Your task to perform on an android device: Open notification settings Image 0: 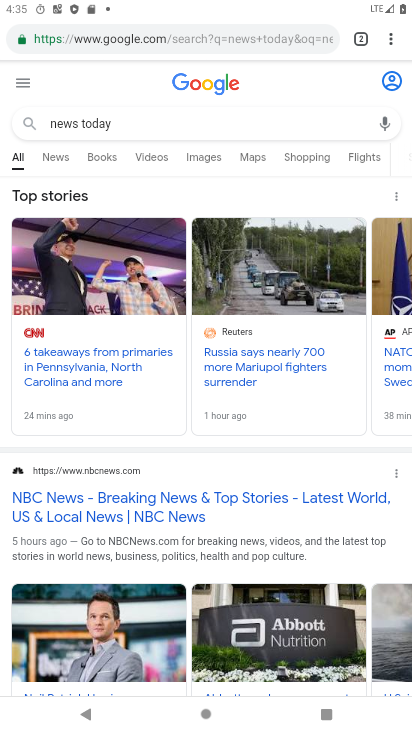
Step 0: click (396, 43)
Your task to perform on an android device: Open notification settings Image 1: 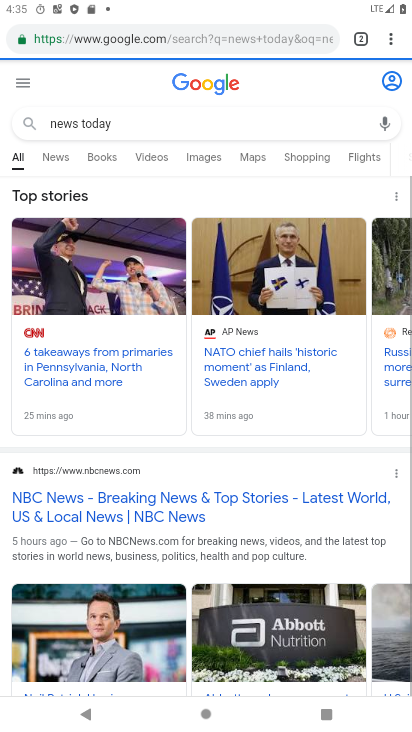
Step 1: click (382, 43)
Your task to perform on an android device: Open notification settings Image 2: 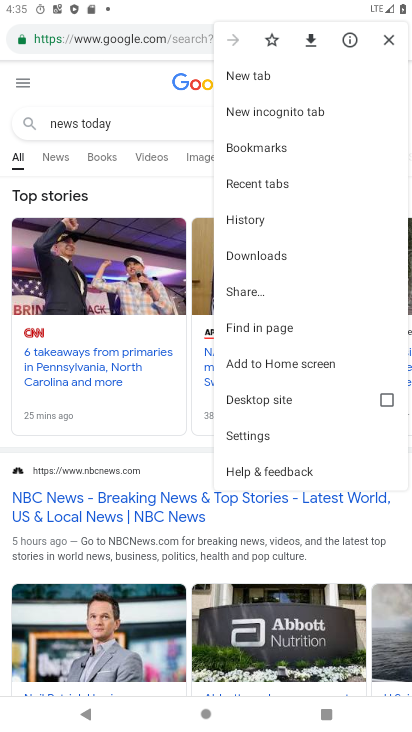
Step 2: click (254, 444)
Your task to perform on an android device: Open notification settings Image 3: 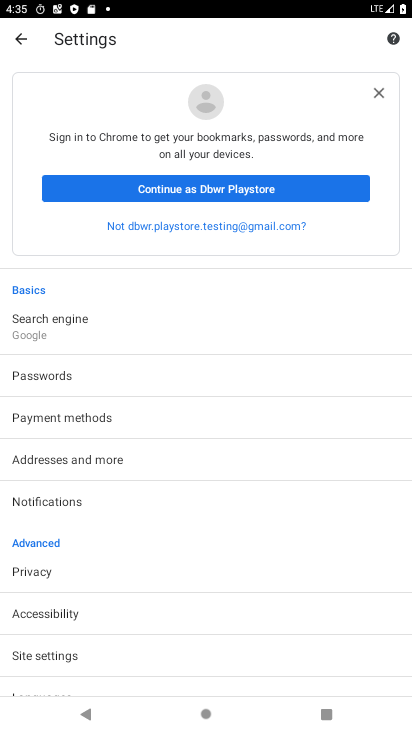
Step 3: press home button
Your task to perform on an android device: Open notification settings Image 4: 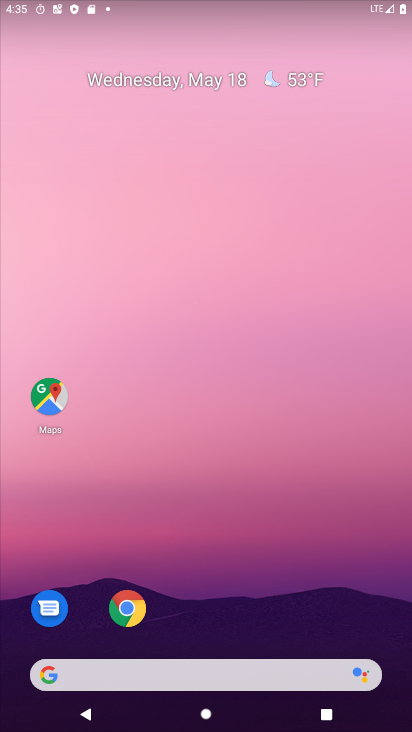
Step 4: drag from (313, 682) to (280, 5)
Your task to perform on an android device: Open notification settings Image 5: 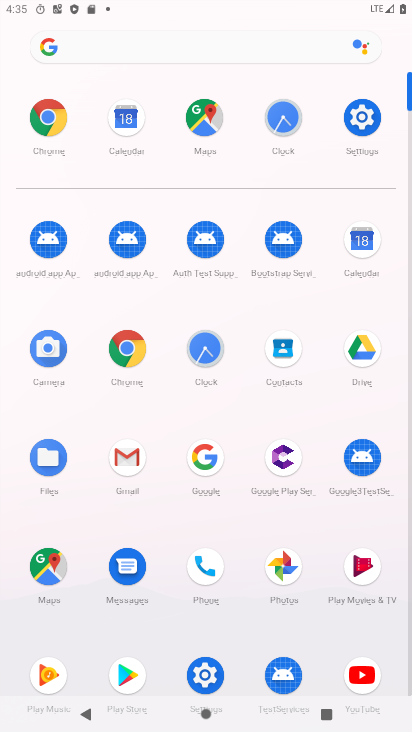
Step 5: click (358, 124)
Your task to perform on an android device: Open notification settings Image 6: 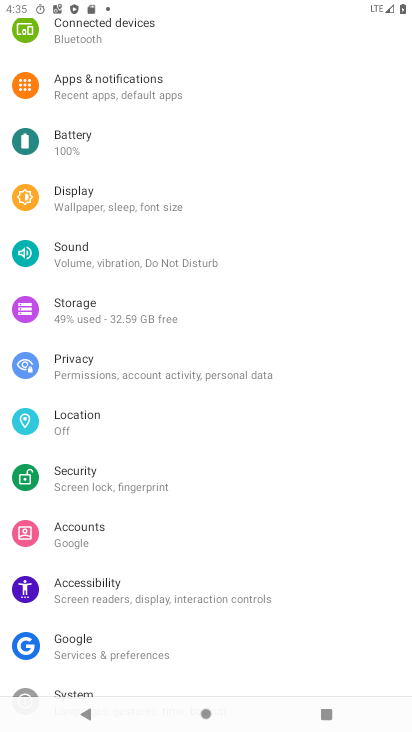
Step 6: click (122, 94)
Your task to perform on an android device: Open notification settings Image 7: 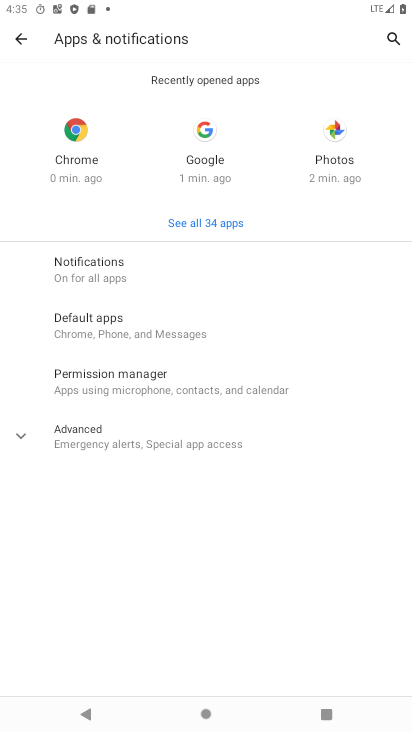
Step 7: task complete